Your task to perform on an android device: Open network settings Image 0: 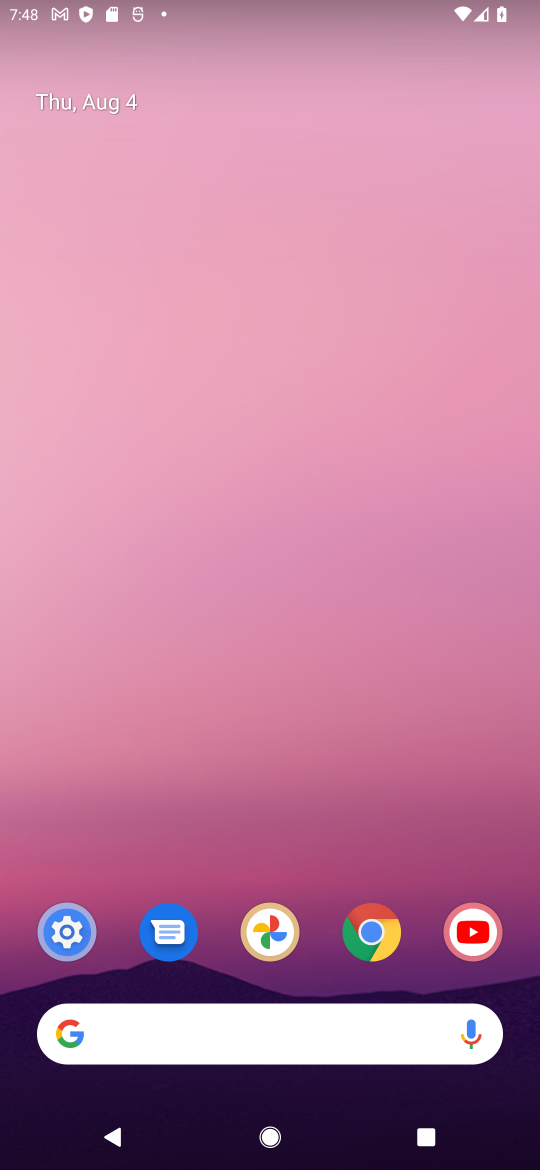
Step 0: click (66, 931)
Your task to perform on an android device: Open network settings Image 1: 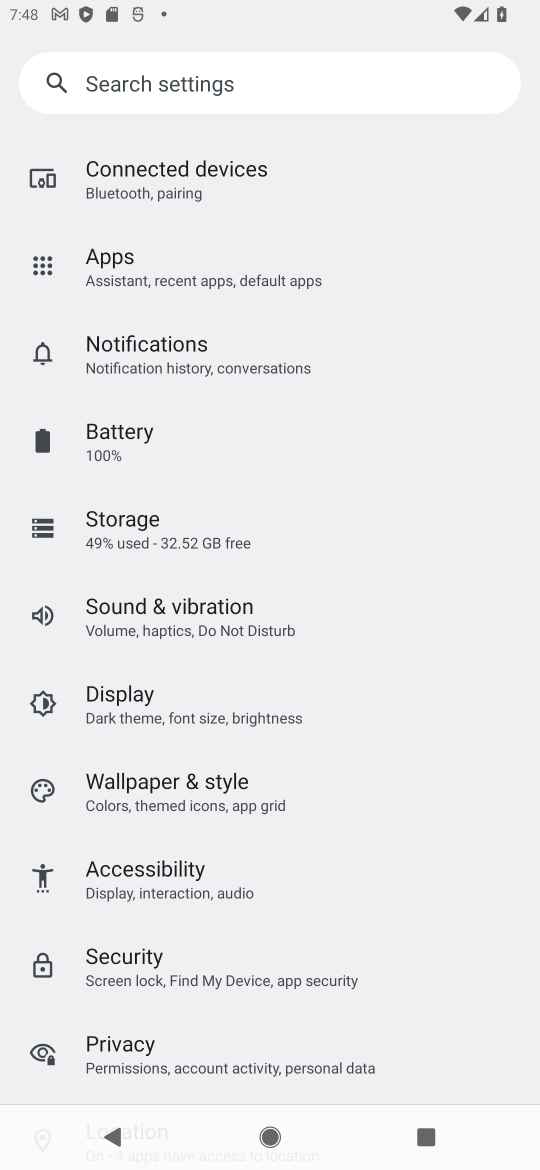
Step 1: drag from (230, 217) to (301, 609)
Your task to perform on an android device: Open network settings Image 2: 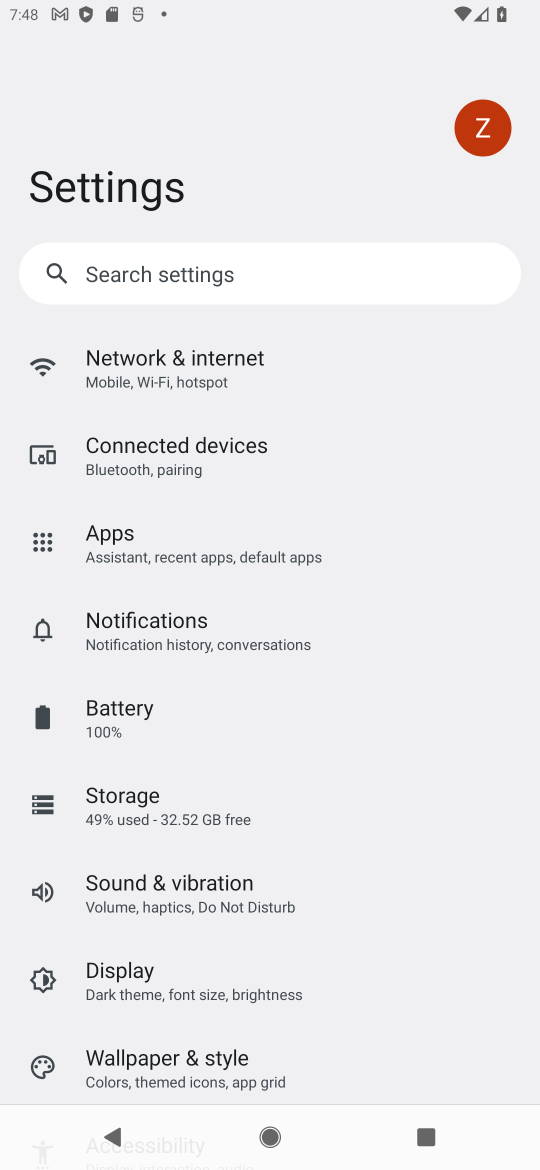
Step 2: click (322, 380)
Your task to perform on an android device: Open network settings Image 3: 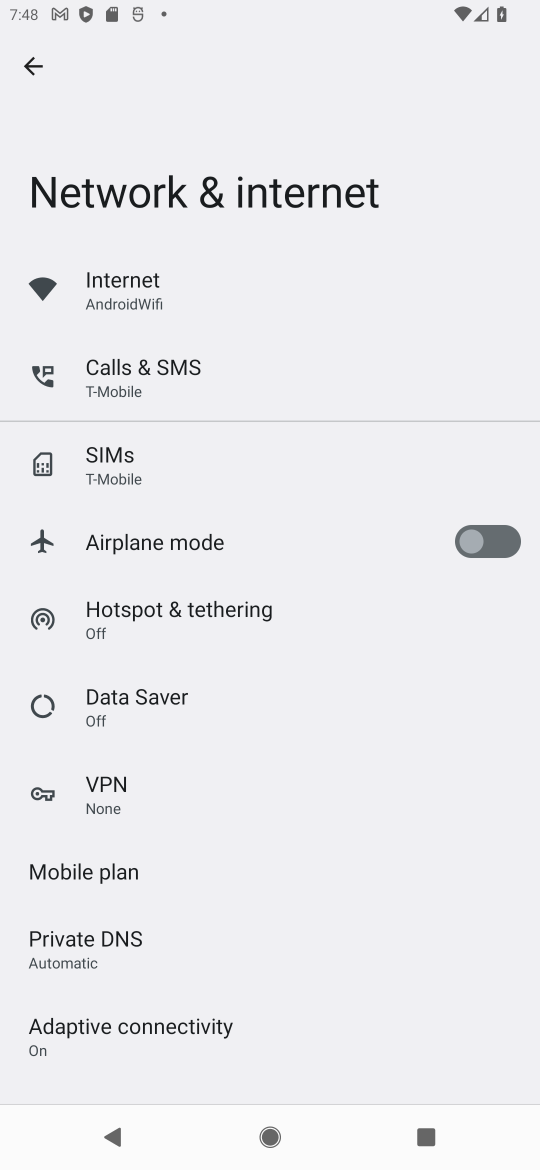
Step 3: task complete